Your task to perform on an android device: Go to Amazon Image 0: 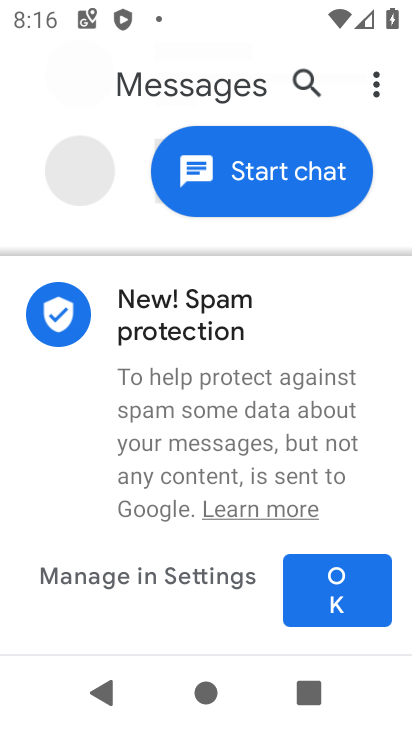
Step 0: press home button
Your task to perform on an android device: Go to Amazon Image 1: 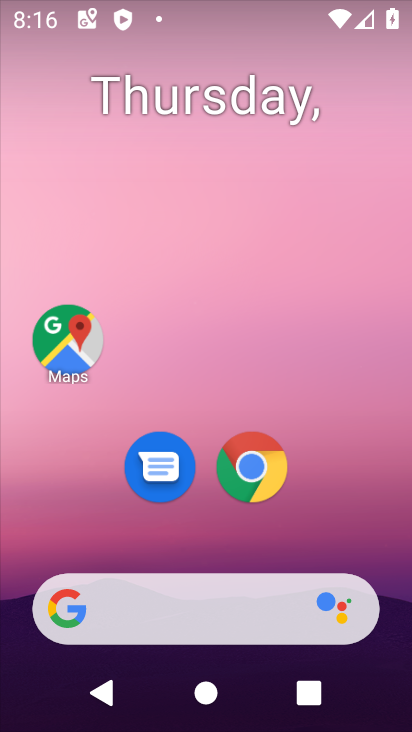
Step 1: click (242, 463)
Your task to perform on an android device: Go to Amazon Image 2: 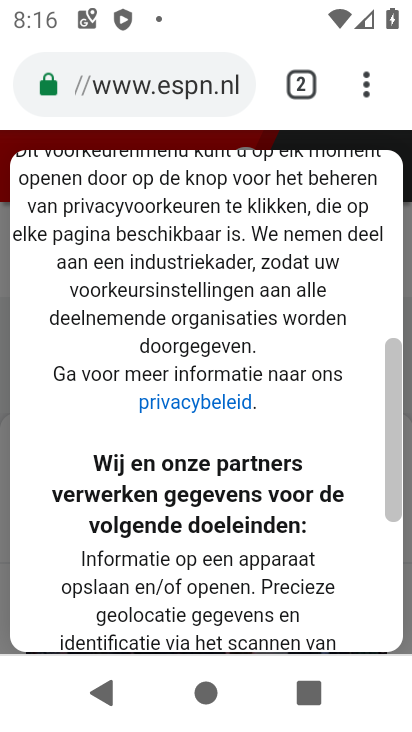
Step 2: click (368, 70)
Your task to perform on an android device: Go to Amazon Image 3: 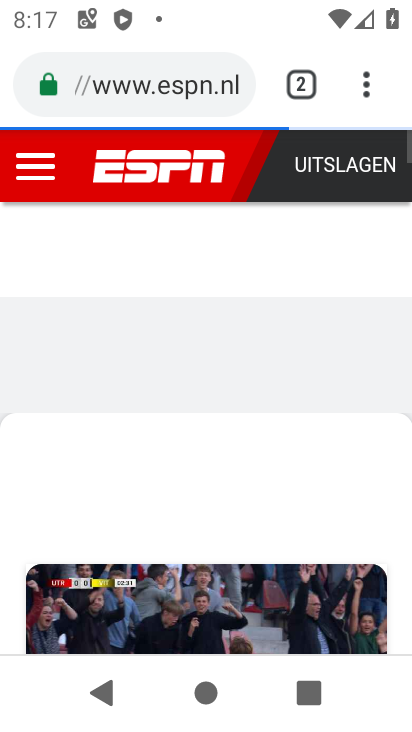
Step 3: click (367, 90)
Your task to perform on an android device: Go to Amazon Image 4: 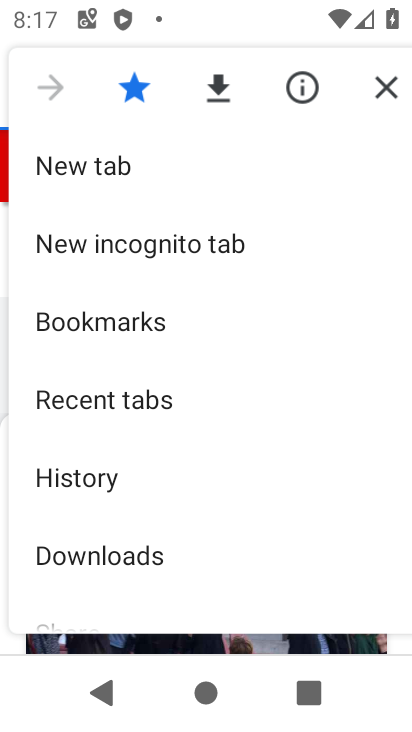
Step 4: click (78, 179)
Your task to perform on an android device: Go to Amazon Image 5: 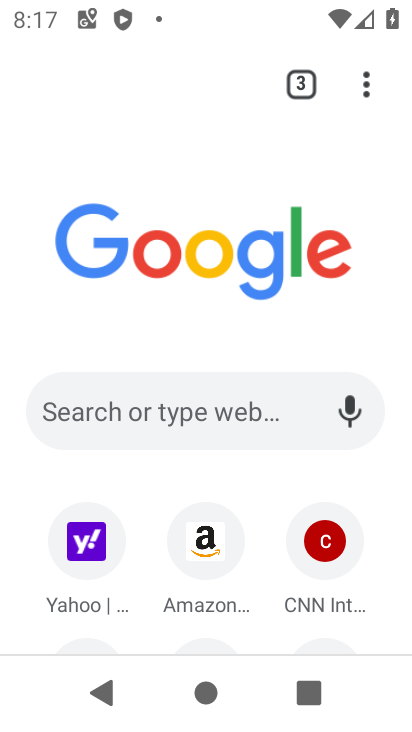
Step 5: drag from (237, 547) to (251, 434)
Your task to perform on an android device: Go to Amazon Image 6: 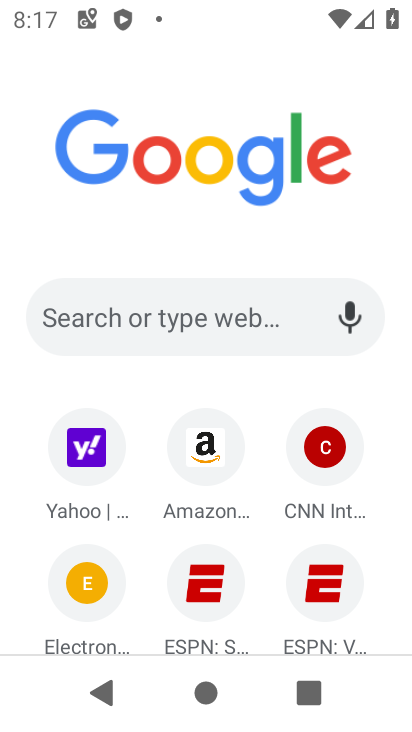
Step 6: click (219, 444)
Your task to perform on an android device: Go to Amazon Image 7: 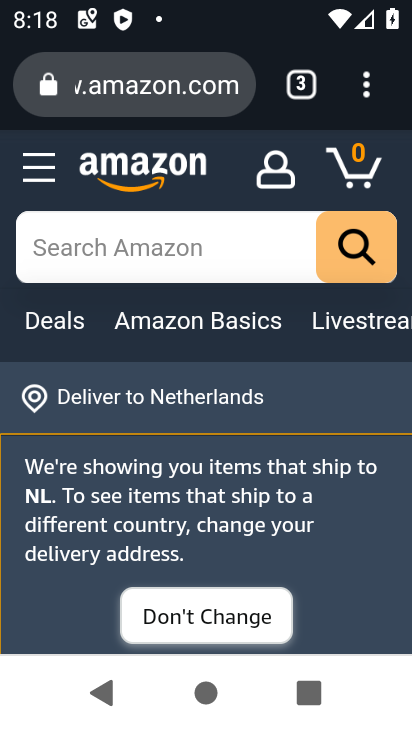
Step 7: task complete